Your task to perform on an android device: add a label to a message in the gmail app Image 0: 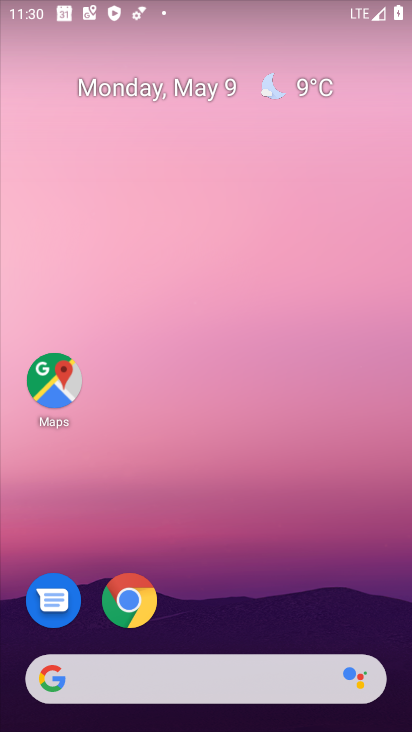
Step 0: drag from (289, 655) to (307, 243)
Your task to perform on an android device: add a label to a message in the gmail app Image 1: 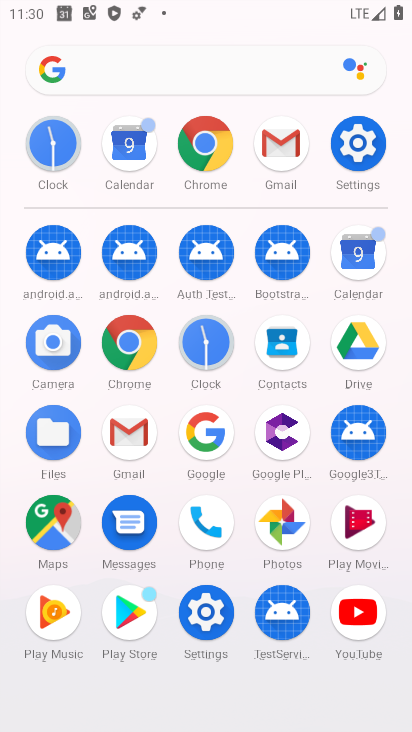
Step 1: click (154, 433)
Your task to perform on an android device: add a label to a message in the gmail app Image 2: 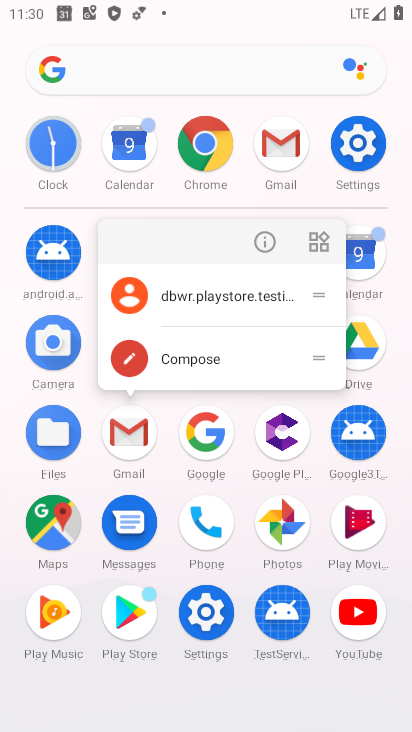
Step 2: click (144, 432)
Your task to perform on an android device: add a label to a message in the gmail app Image 3: 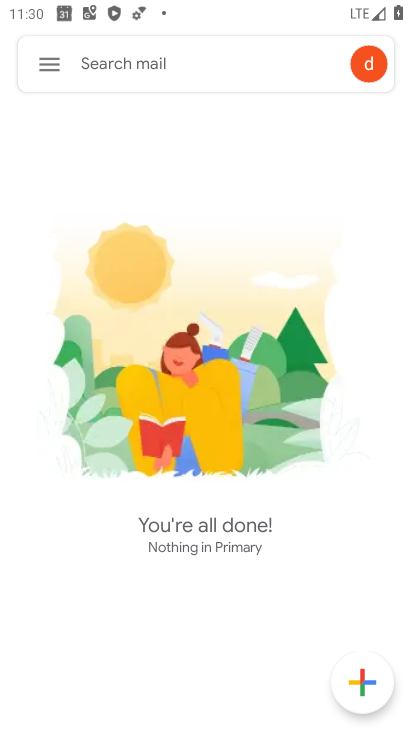
Step 3: task complete